Your task to perform on an android device: Set the phone to "Do not disturb". Image 0: 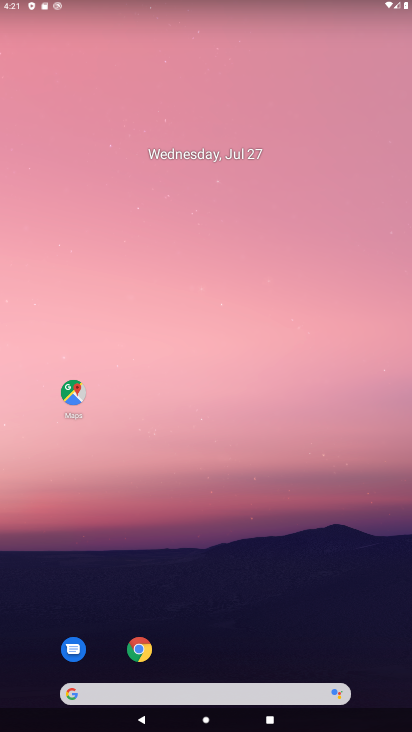
Step 0: drag from (294, 593) to (255, 245)
Your task to perform on an android device: Set the phone to "Do not disturb". Image 1: 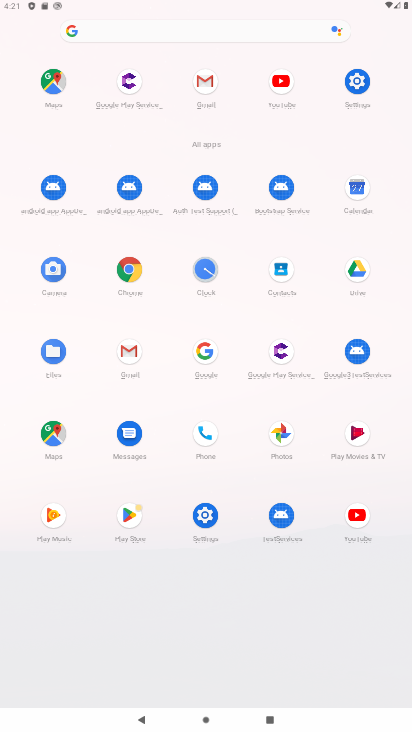
Step 1: drag from (225, 4) to (228, 461)
Your task to perform on an android device: Set the phone to "Do not disturb". Image 2: 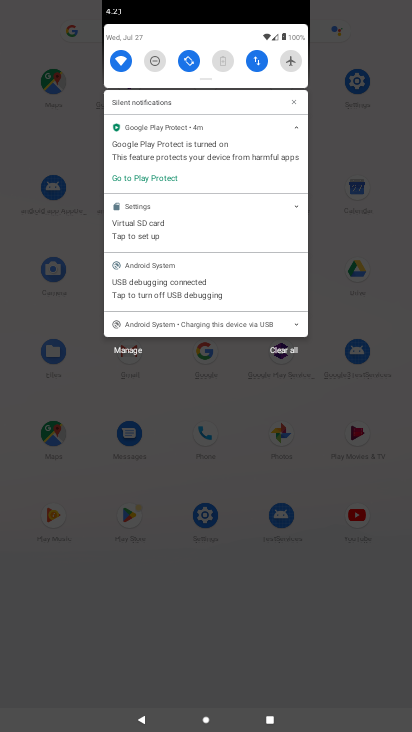
Step 2: click (153, 64)
Your task to perform on an android device: Set the phone to "Do not disturb". Image 3: 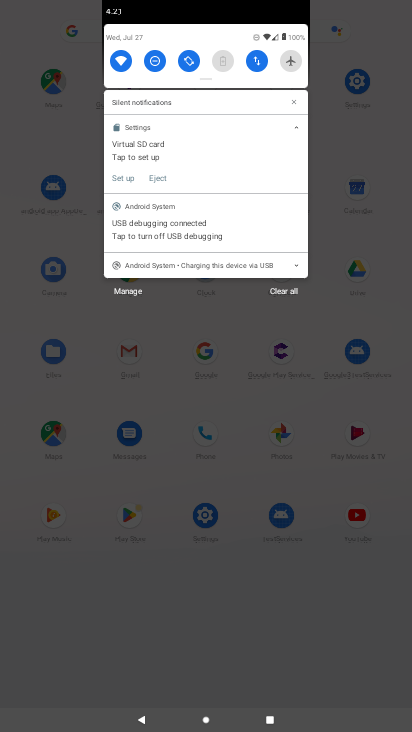
Step 3: task complete